Your task to perform on an android device: toggle location history Image 0: 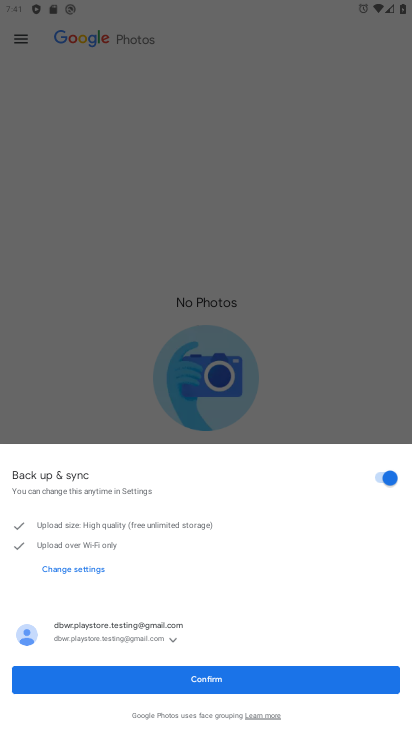
Step 0: press home button
Your task to perform on an android device: toggle location history Image 1: 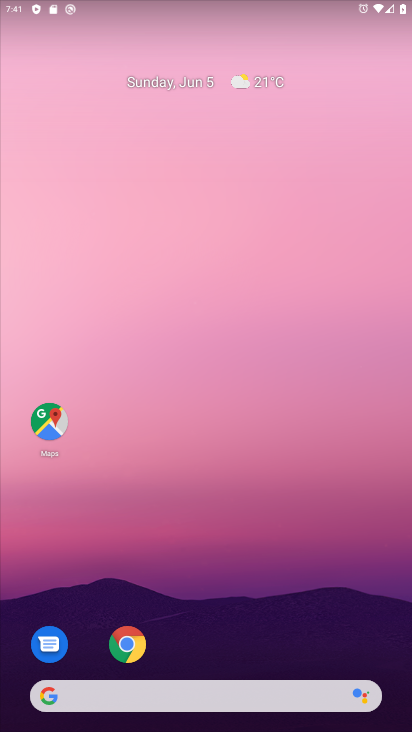
Step 1: drag from (2, 714) to (339, 64)
Your task to perform on an android device: toggle location history Image 2: 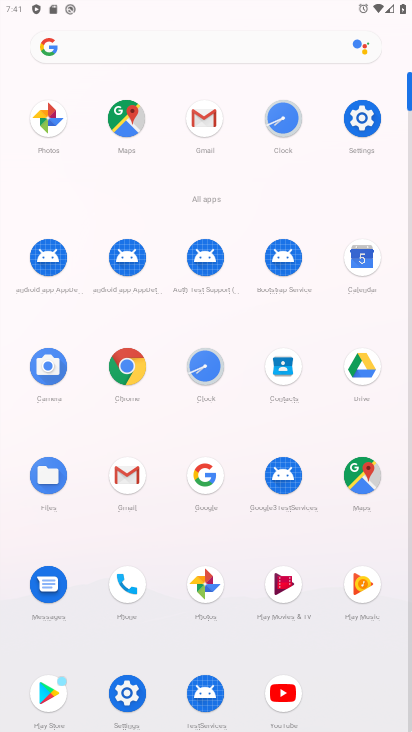
Step 2: click (356, 124)
Your task to perform on an android device: toggle location history Image 3: 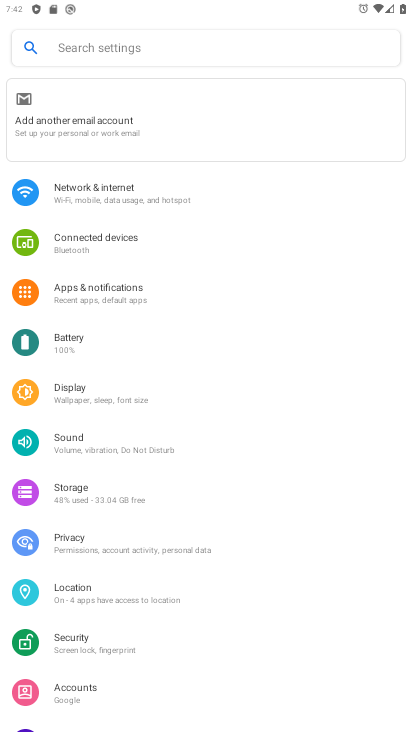
Step 3: click (90, 596)
Your task to perform on an android device: toggle location history Image 4: 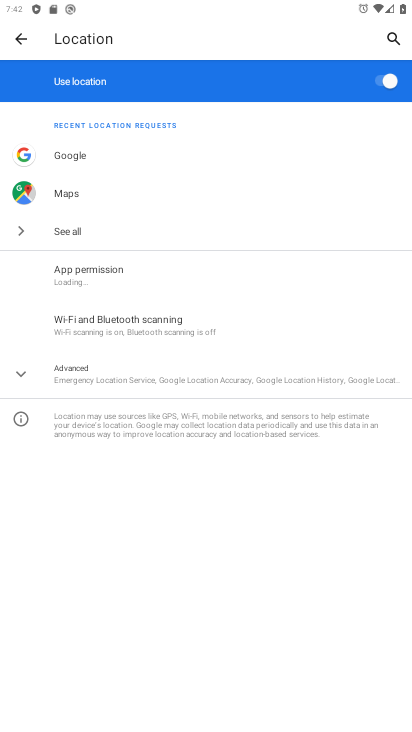
Step 4: click (162, 371)
Your task to perform on an android device: toggle location history Image 5: 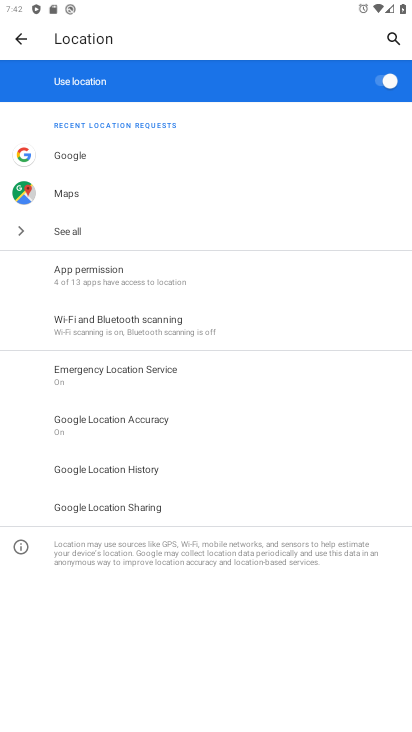
Step 5: click (121, 470)
Your task to perform on an android device: toggle location history Image 6: 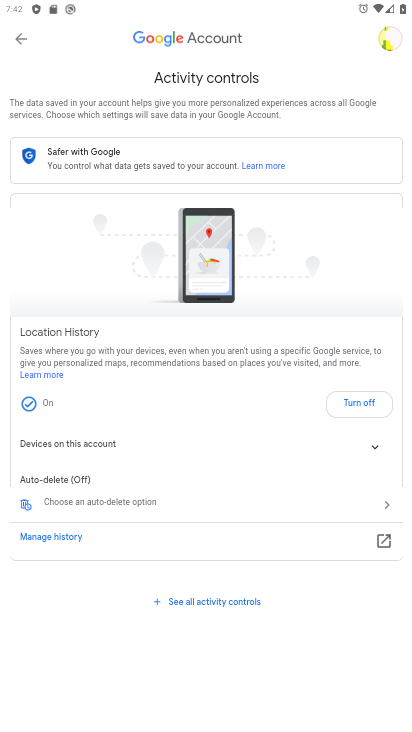
Step 6: click (350, 403)
Your task to perform on an android device: toggle location history Image 7: 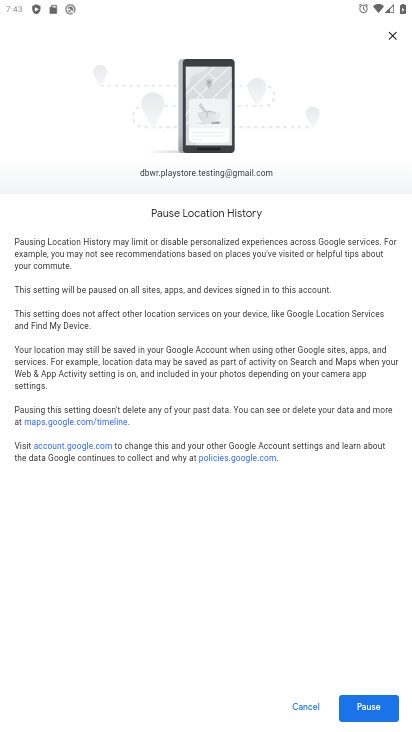
Step 7: click (371, 713)
Your task to perform on an android device: toggle location history Image 8: 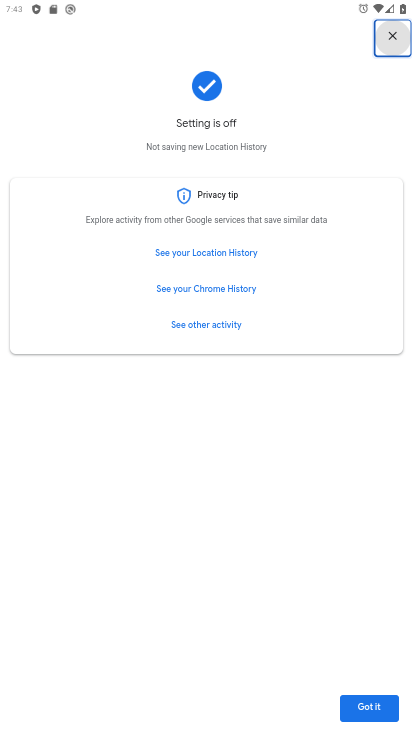
Step 8: click (369, 701)
Your task to perform on an android device: toggle location history Image 9: 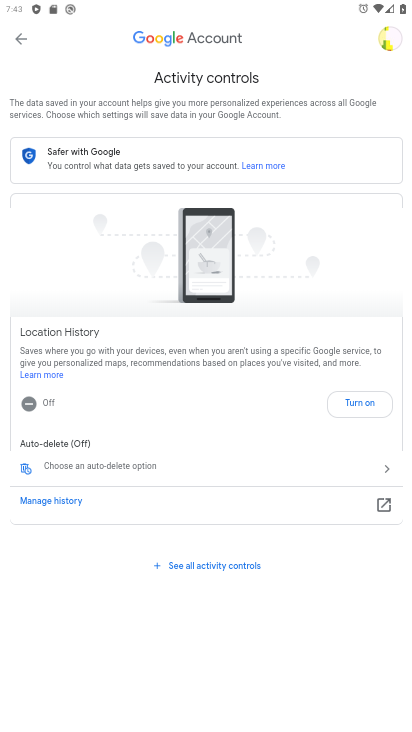
Step 9: task complete